Your task to perform on an android device: Open eBay Image 0: 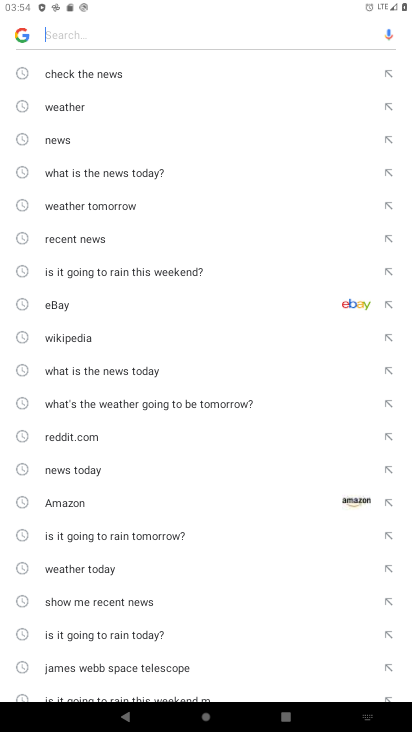
Step 0: press home button
Your task to perform on an android device: Open eBay Image 1: 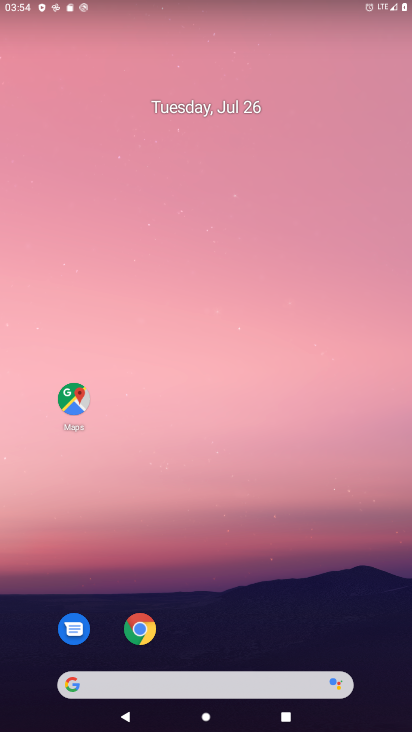
Step 1: drag from (272, 614) to (320, 124)
Your task to perform on an android device: Open eBay Image 2: 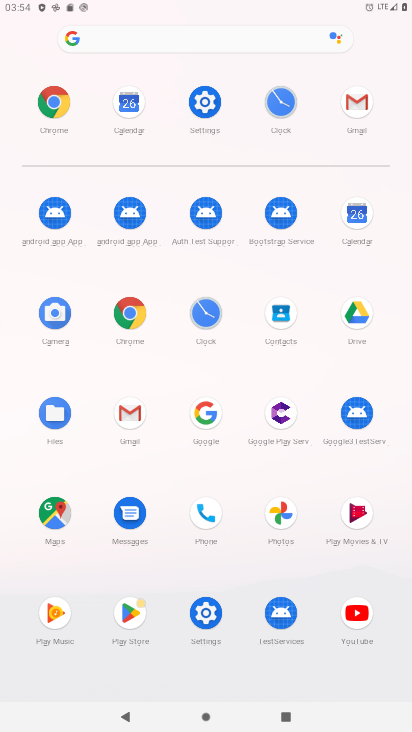
Step 2: click (123, 314)
Your task to perform on an android device: Open eBay Image 3: 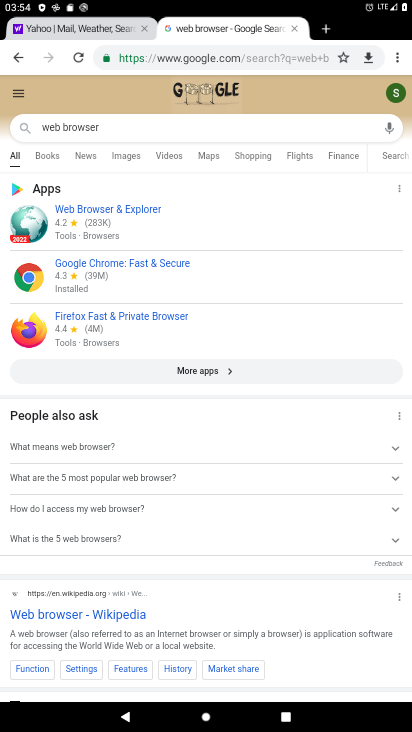
Step 3: click (268, 63)
Your task to perform on an android device: Open eBay Image 4: 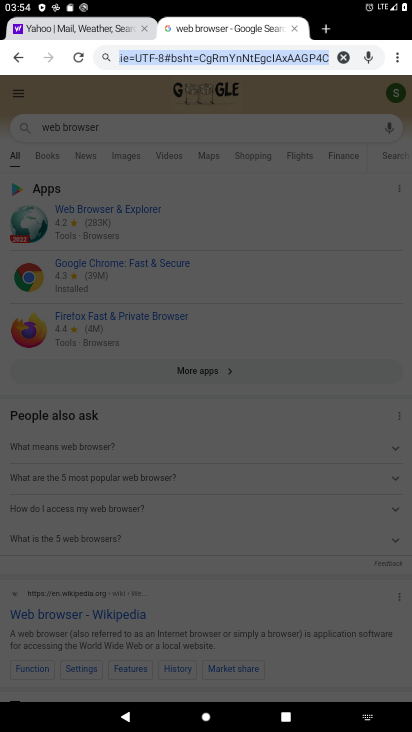
Step 4: type " eBay"
Your task to perform on an android device: Open eBay Image 5: 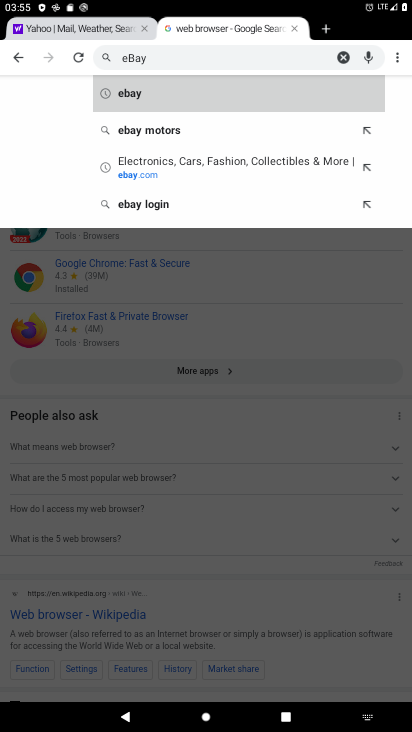
Step 5: click (141, 171)
Your task to perform on an android device: Open eBay Image 6: 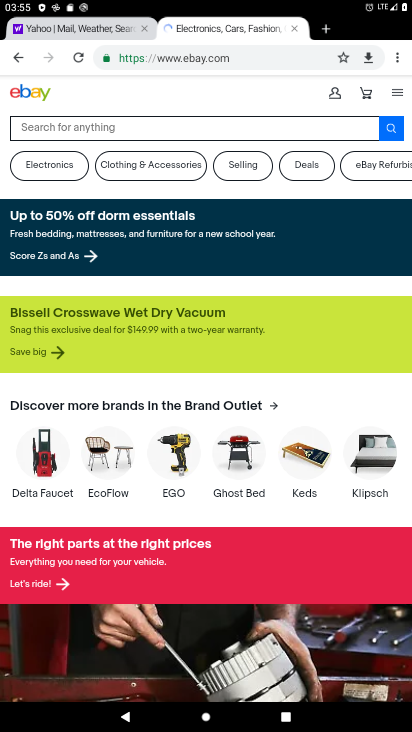
Step 6: task complete